Your task to perform on an android device: Search for the Nintendo Switch. Image 0: 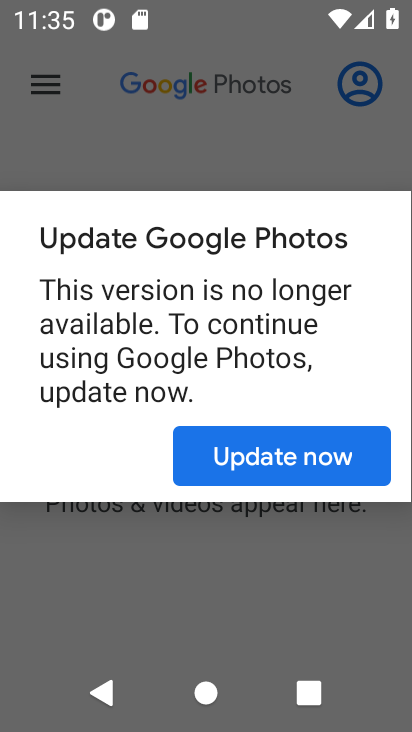
Step 0: press home button
Your task to perform on an android device: Search for the Nintendo Switch. Image 1: 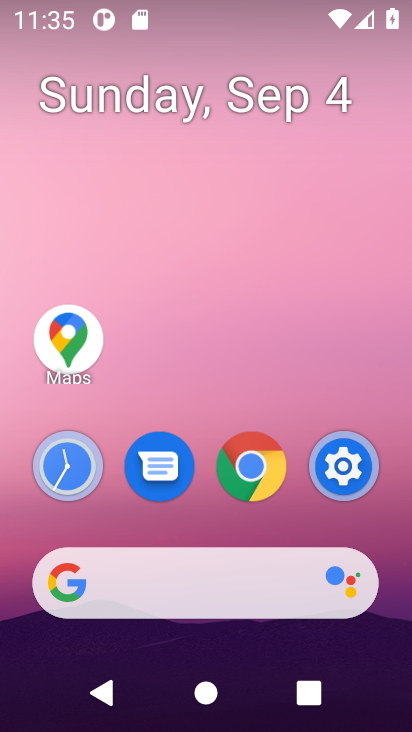
Step 1: click (231, 588)
Your task to perform on an android device: Search for the Nintendo Switch. Image 2: 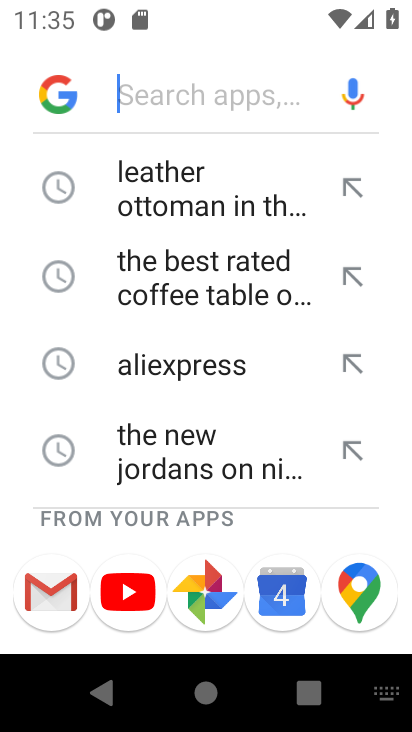
Step 2: type "the Nintendo Switch."
Your task to perform on an android device: Search for the Nintendo Switch. Image 3: 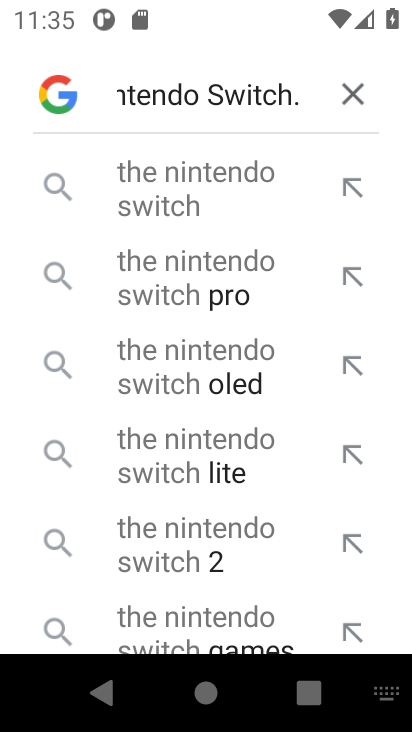
Step 3: click (251, 185)
Your task to perform on an android device: Search for the Nintendo Switch. Image 4: 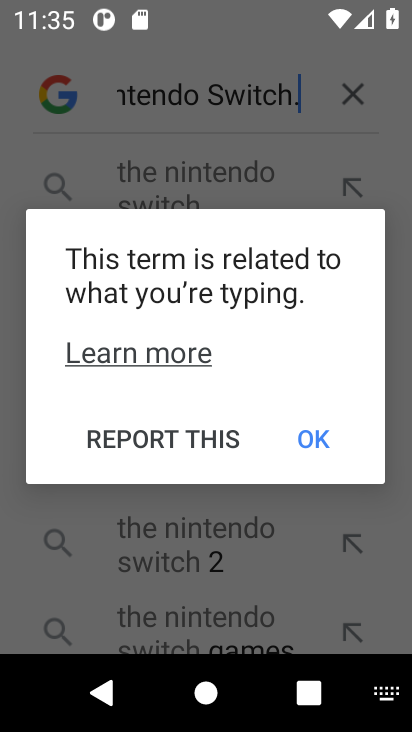
Step 4: click (318, 432)
Your task to perform on an android device: Search for the Nintendo Switch. Image 5: 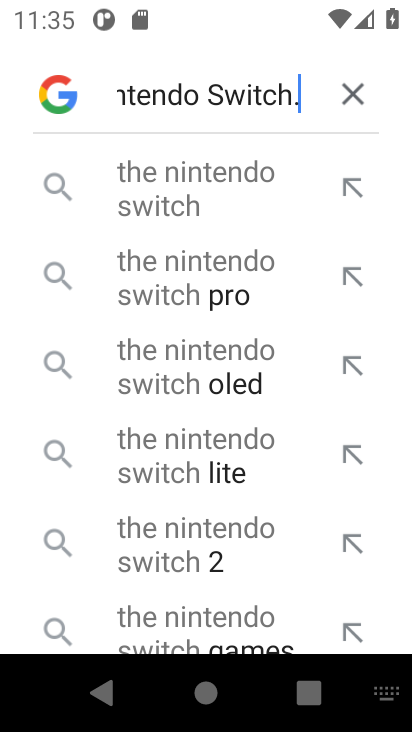
Step 5: click (149, 196)
Your task to perform on an android device: Search for the Nintendo Switch. Image 6: 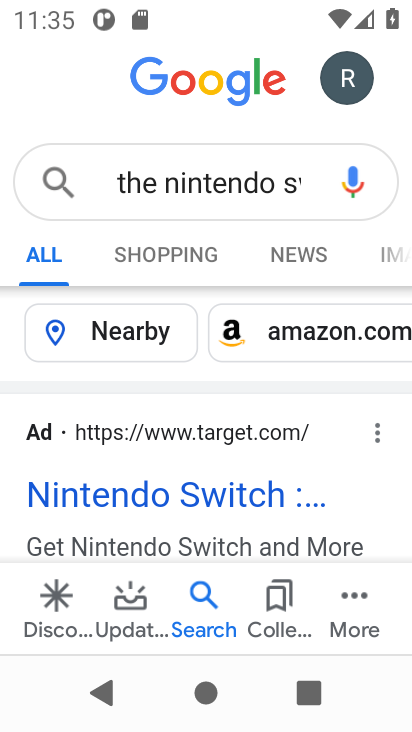
Step 6: task complete